Your task to perform on an android device: open a new tab in the chrome app Image 0: 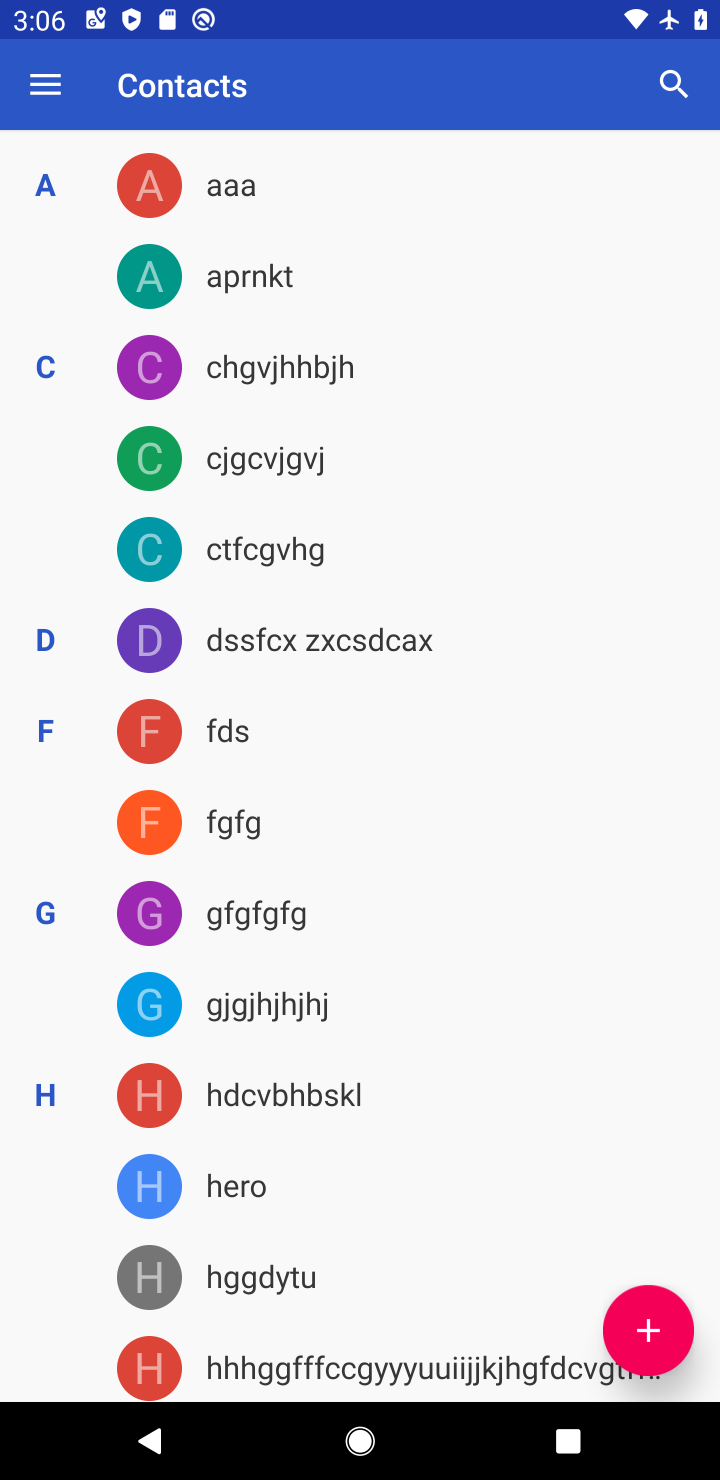
Step 0: press home button
Your task to perform on an android device: open a new tab in the chrome app Image 1: 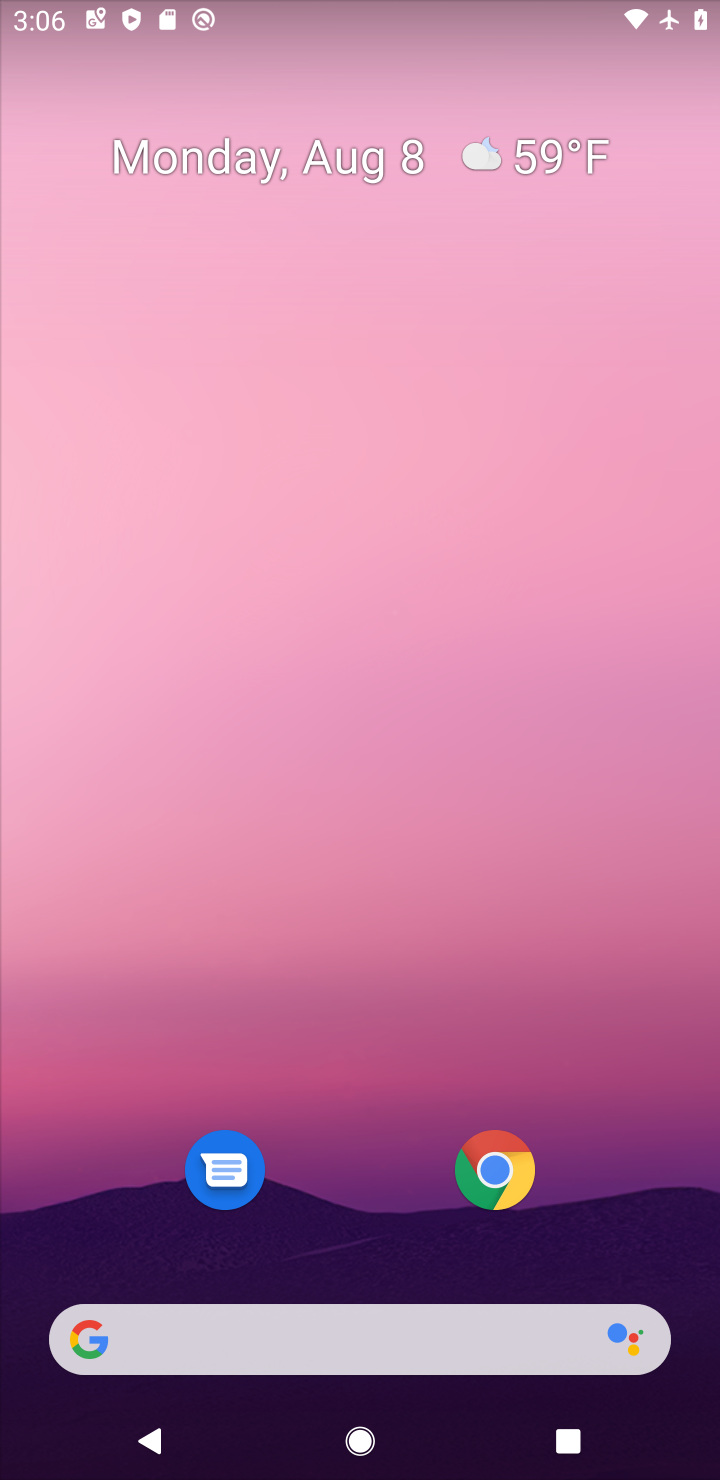
Step 1: click (502, 1149)
Your task to perform on an android device: open a new tab in the chrome app Image 2: 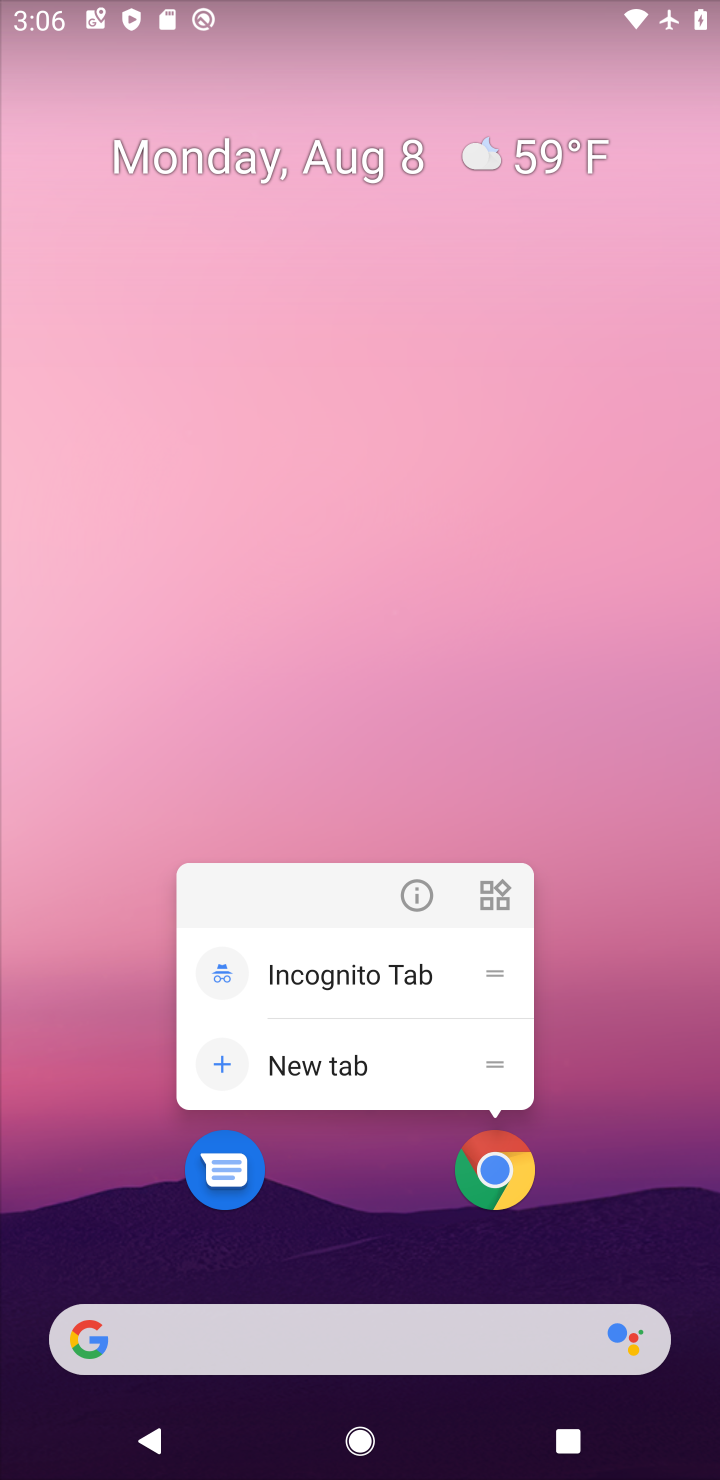
Step 2: click (504, 1146)
Your task to perform on an android device: open a new tab in the chrome app Image 3: 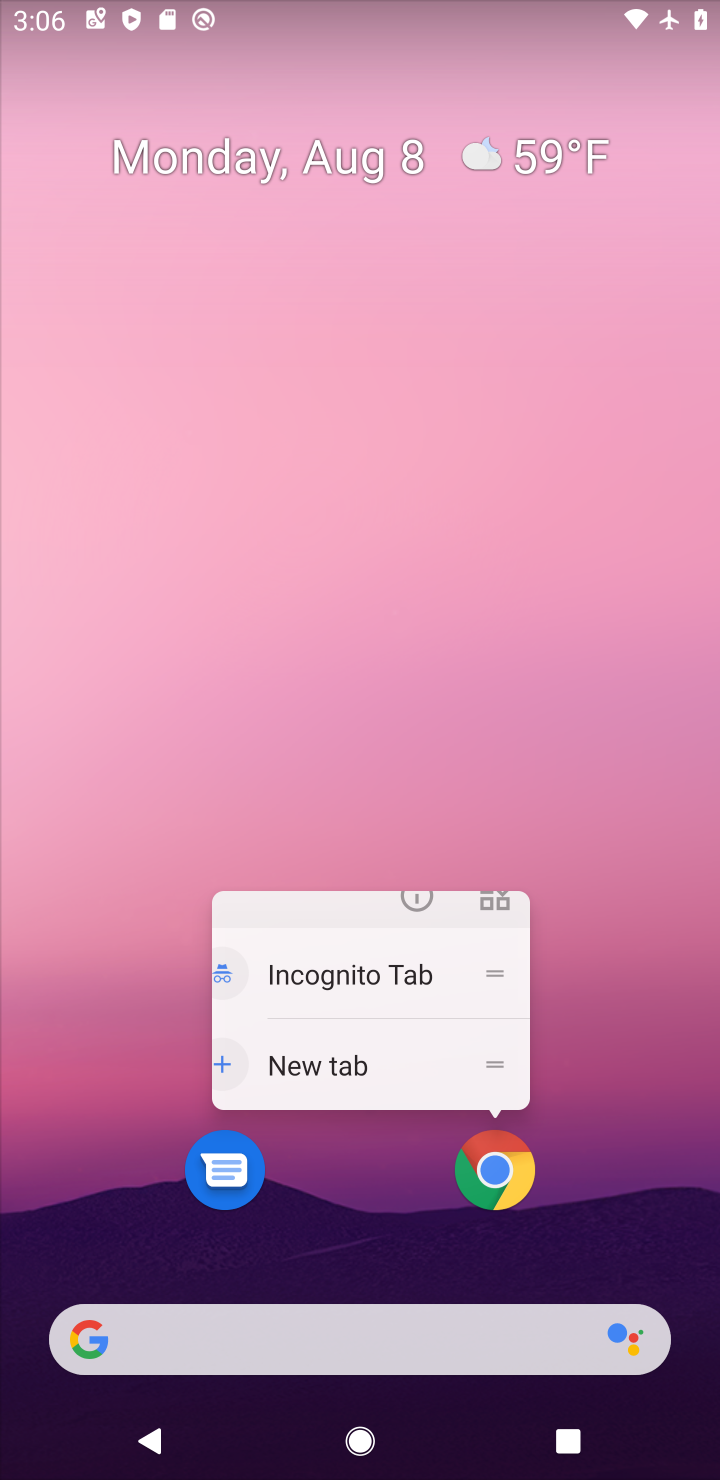
Step 3: click (504, 1146)
Your task to perform on an android device: open a new tab in the chrome app Image 4: 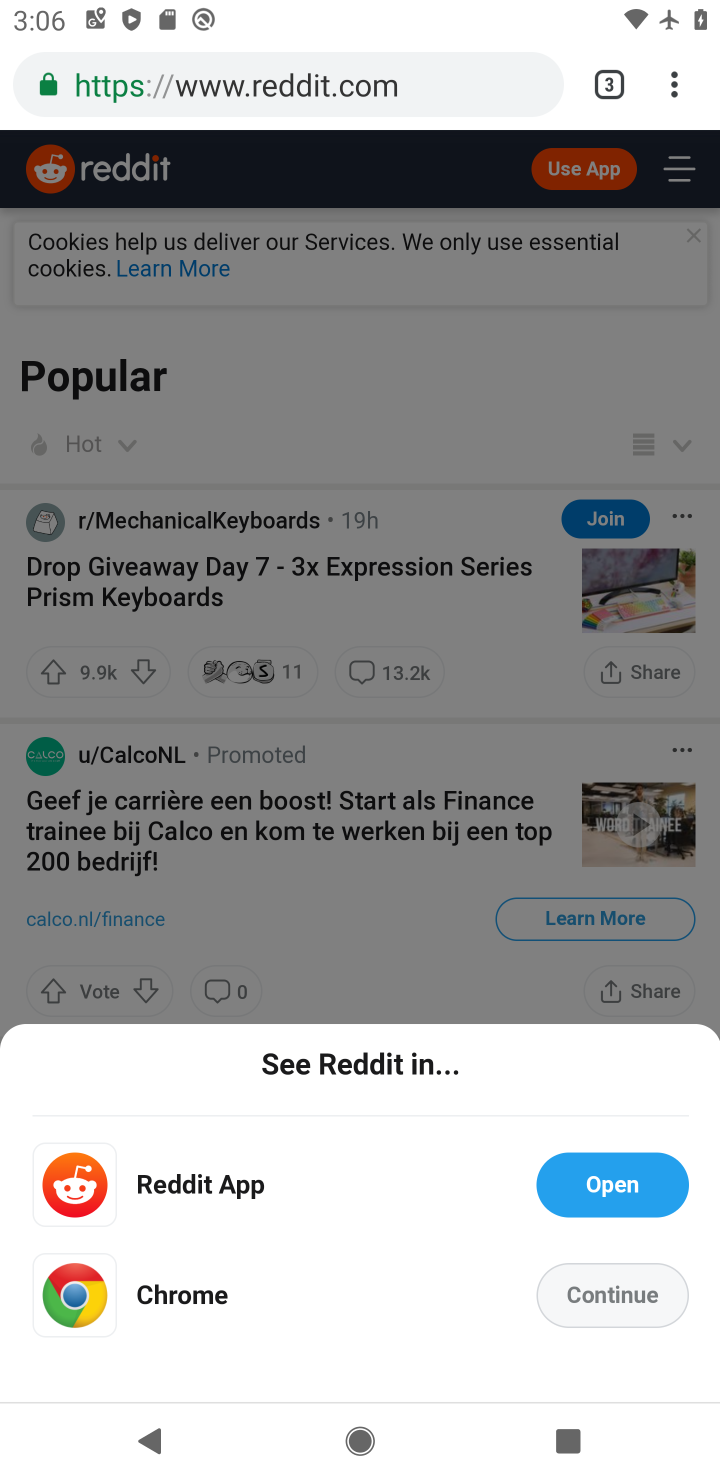
Step 4: click (599, 1305)
Your task to perform on an android device: open a new tab in the chrome app Image 5: 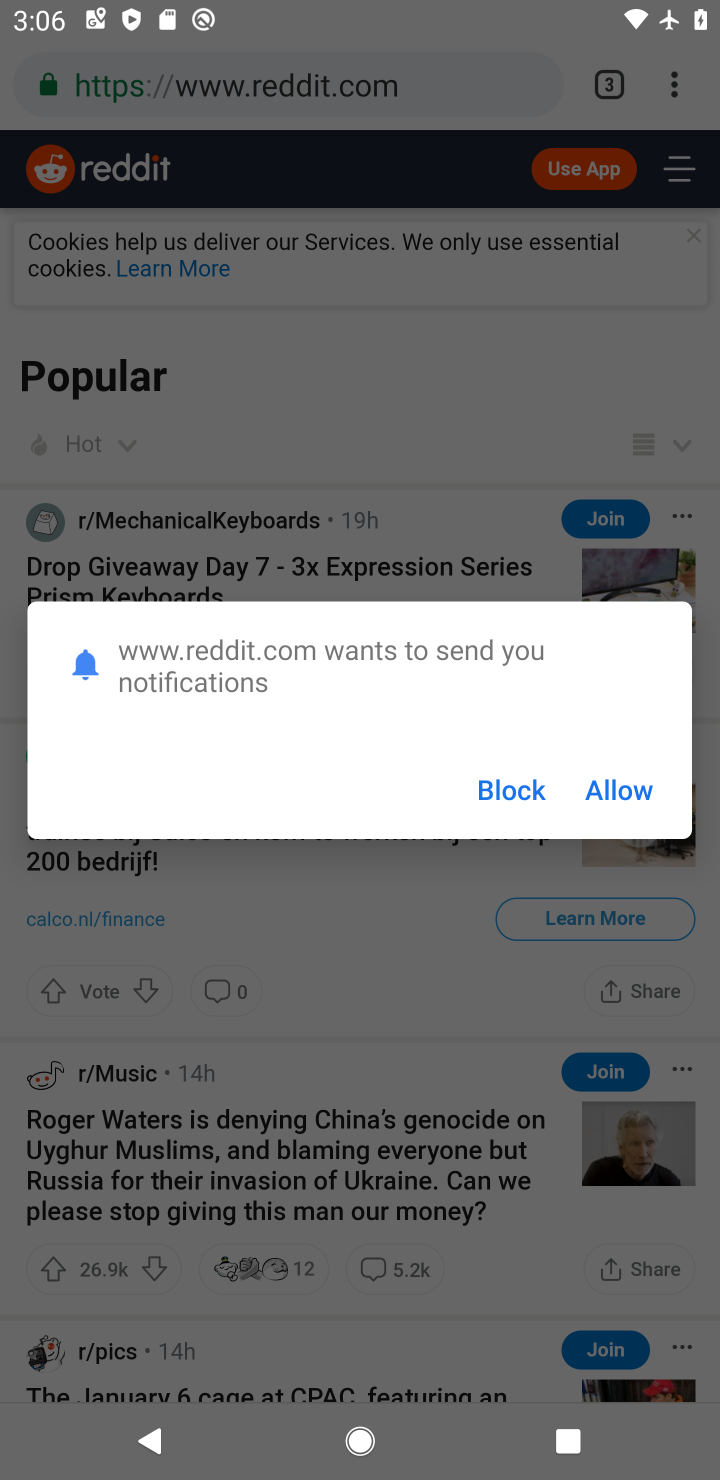
Step 5: click (616, 783)
Your task to perform on an android device: open a new tab in the chrome app Image 6: 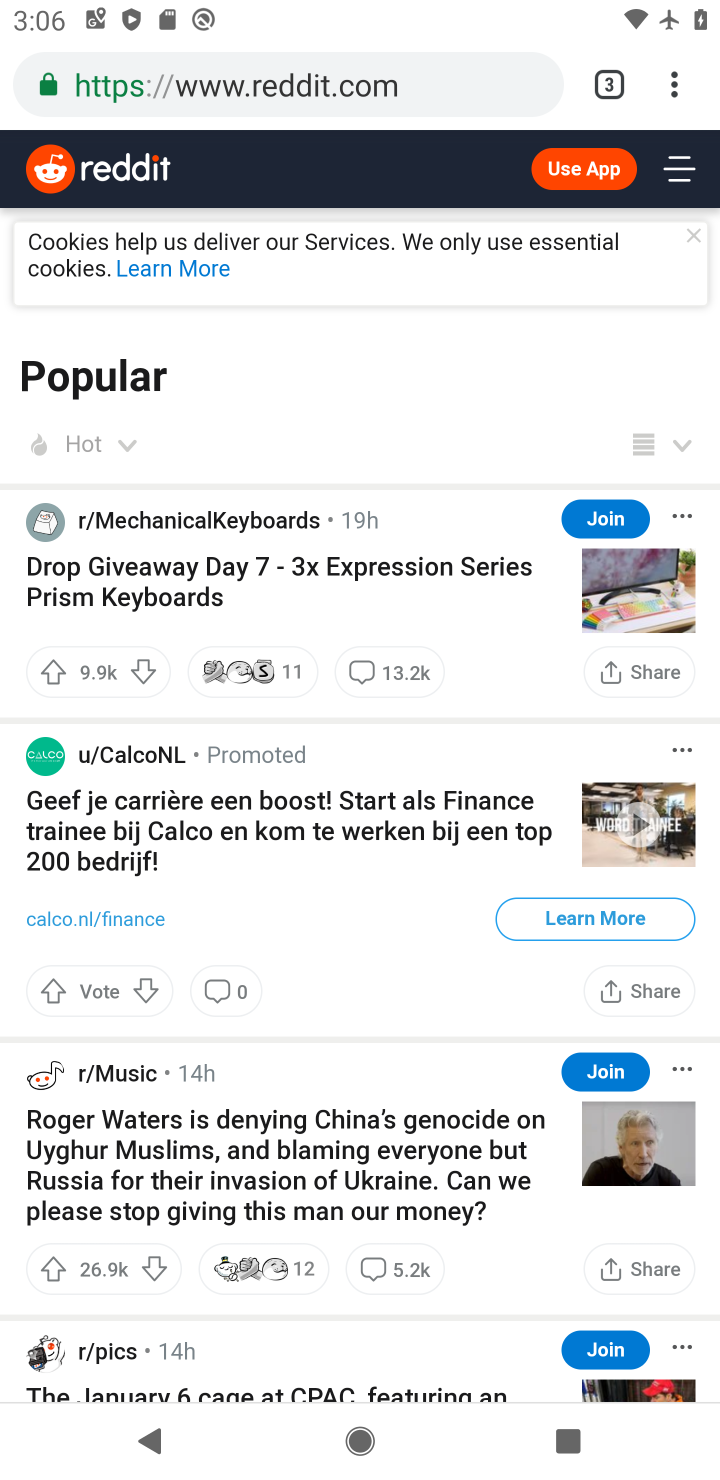
Step 6: click (607, 89)
Your task to perform on an android device: open a new tab in the chrome app Image 7: 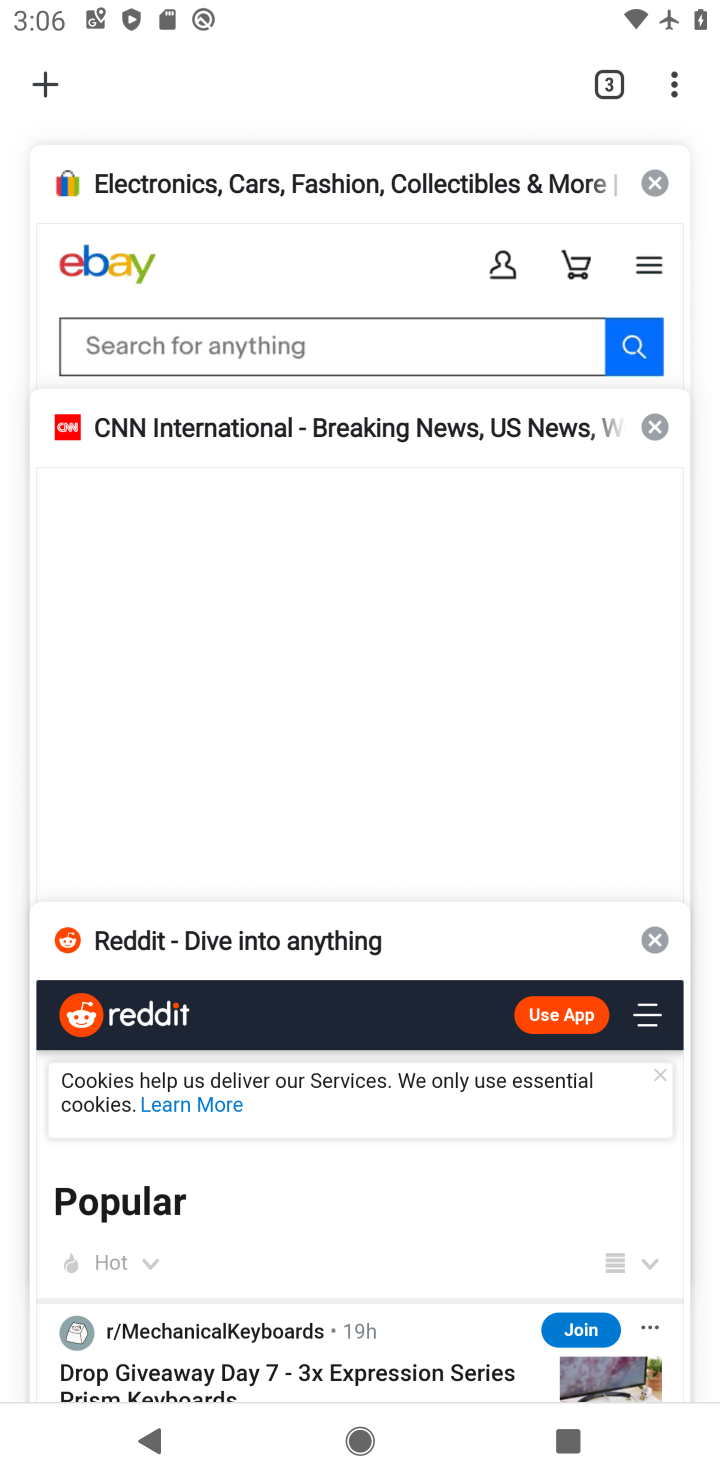
Step 7: click (48, 77)
Your task to perform on an android device: open a new tab in the chrome app Image 8: 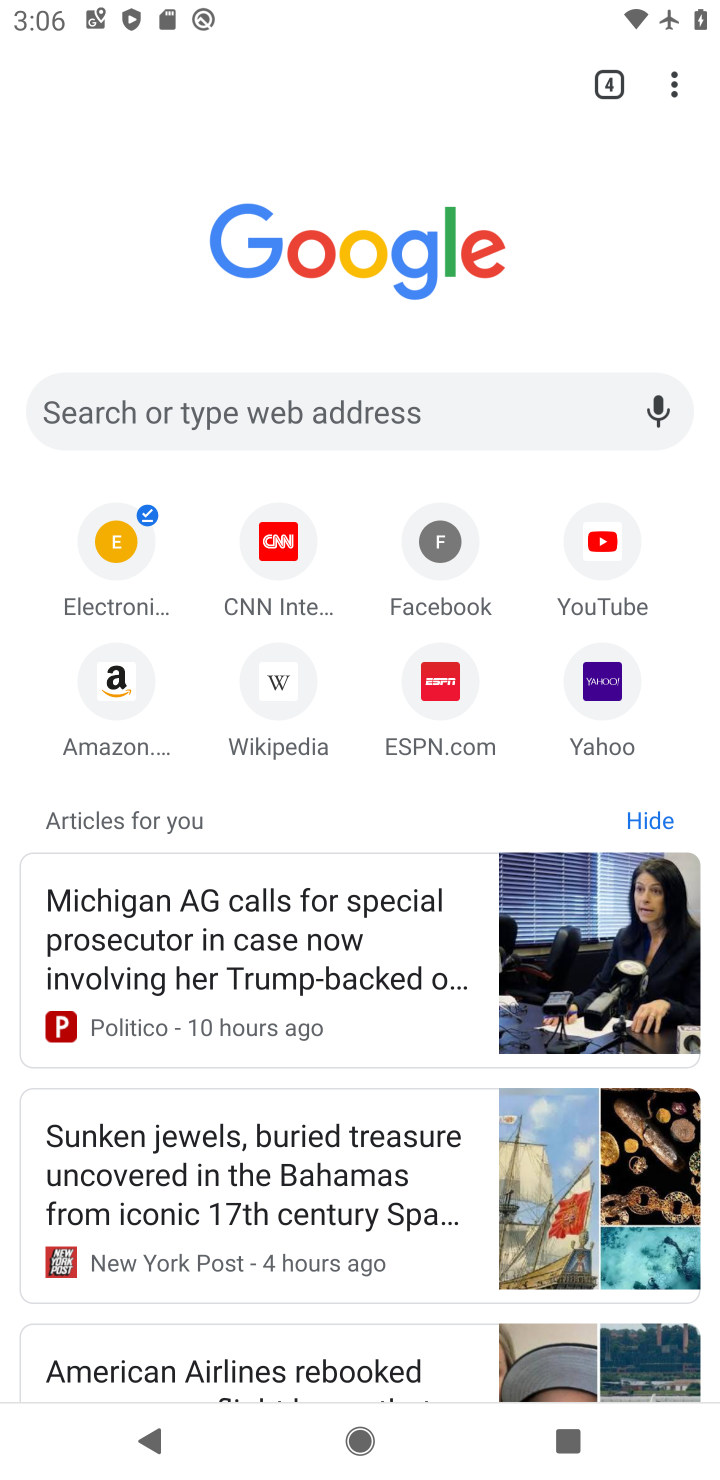
Step 8: task complete